Your task to perform on an android device: When is my next appointment? Image 0: 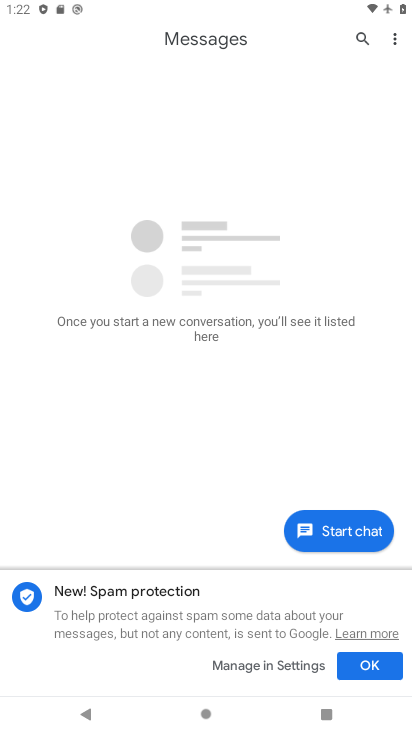
Step 0: press home button
Your task to perform on an android device: When is my next appointment? Image 1: 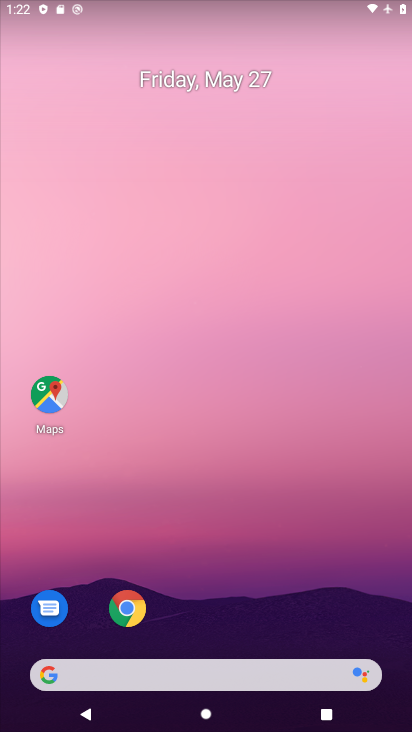
Step 1: drag from (195, 624) to (307, 91)
Your task to perform on an android device: When is my next appointment? Image 2: 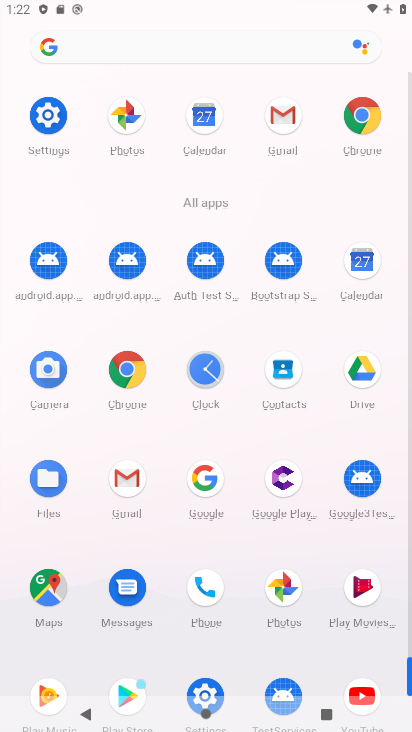
Step 2: click (359, 269)
Your task to perform on an android device: When is my next appointment? Image 3: 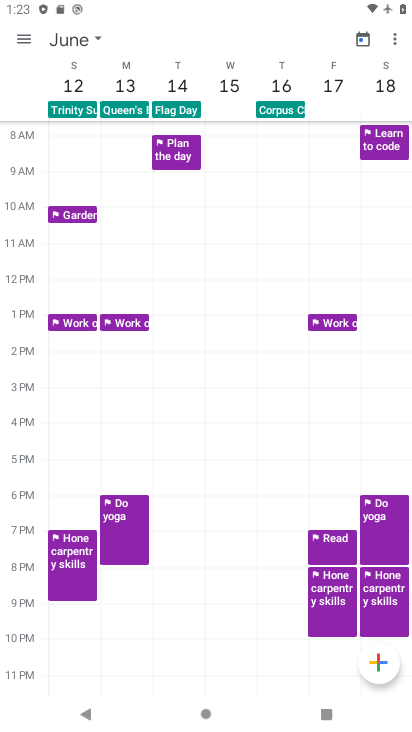
Step 3: click (55, 35)
Your task to perform on an android device: When is my next appointment? Image 4: 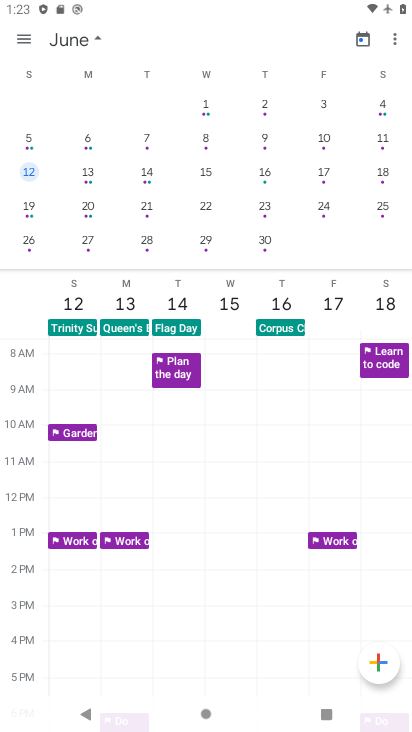
Step 4: drag from (57, 194) to (409, 199)
Your task to perform on an android device: When is my next appointment? Image 5: 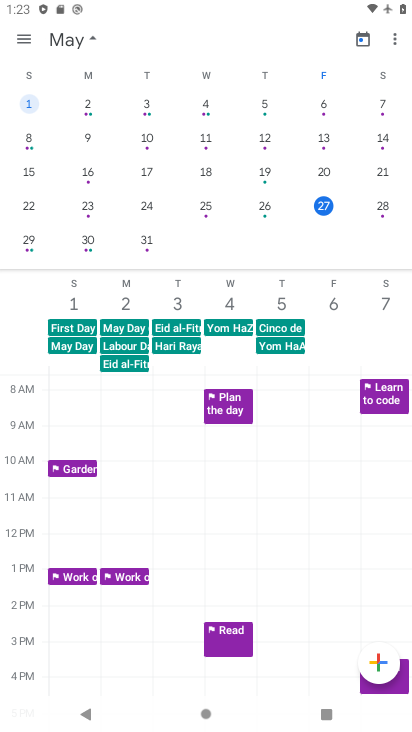
Step 5: drag from (92, 138) to (231, 135)
Your task to perform on an android device: When is my next appointment? Image 6: 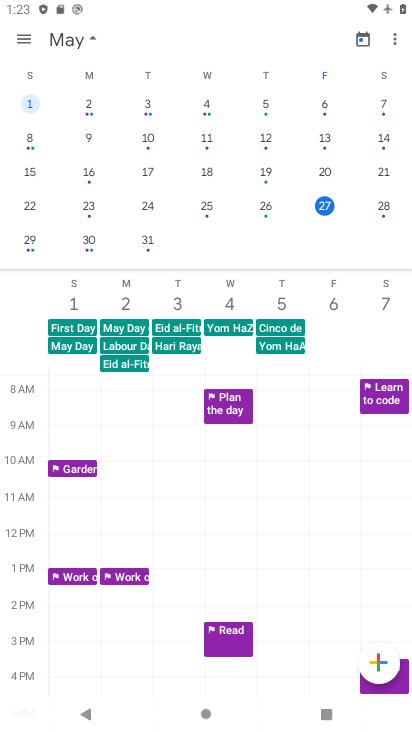
Step 6: drag from (226, 136) to (81, 137)
Your task to perform on an android device: When is my next appointment? Image 7: 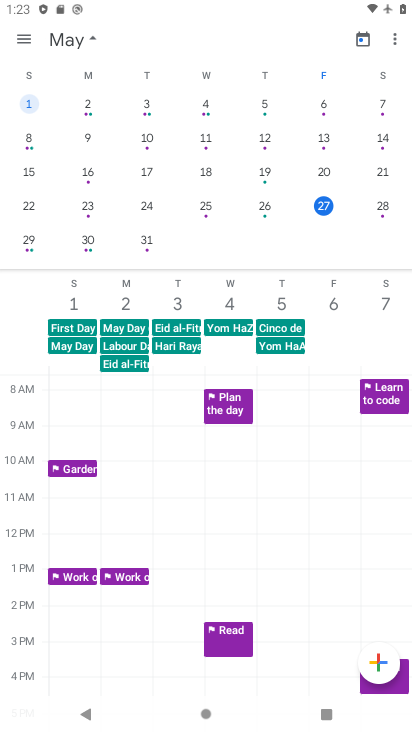
Step 7: click (320, 207)
Your task to perform on an android device: When is my next appointment? Image 8: 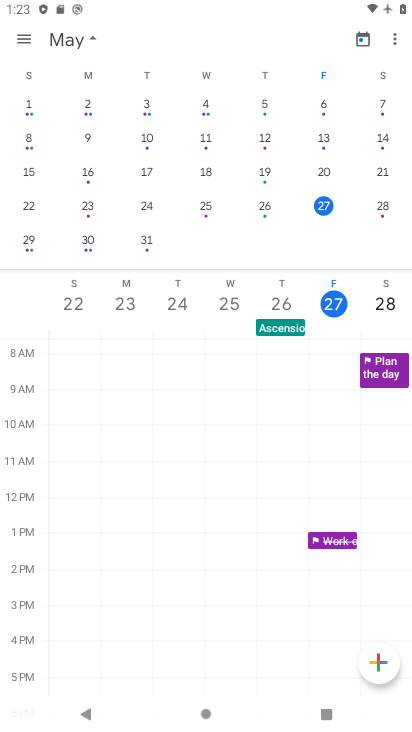
Step 8: click (26, 34)
Your task to perform on an android device: When is my next appointment? Image 9: 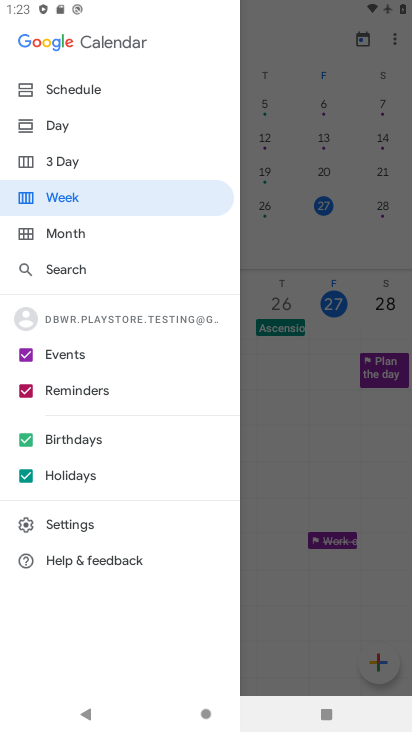
Step 9: click (89, 87)
Your task to perform on an android device: When is my next appointment? Image 10: 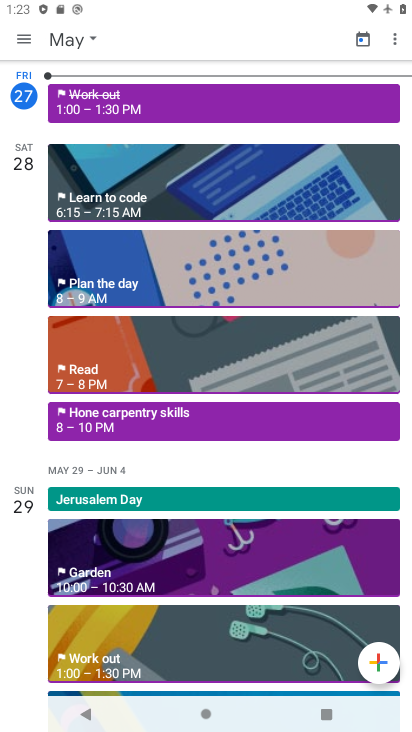
Step 10: click (142, 436)
Your task to perform on an android device: When is my next appointment? Image 11: 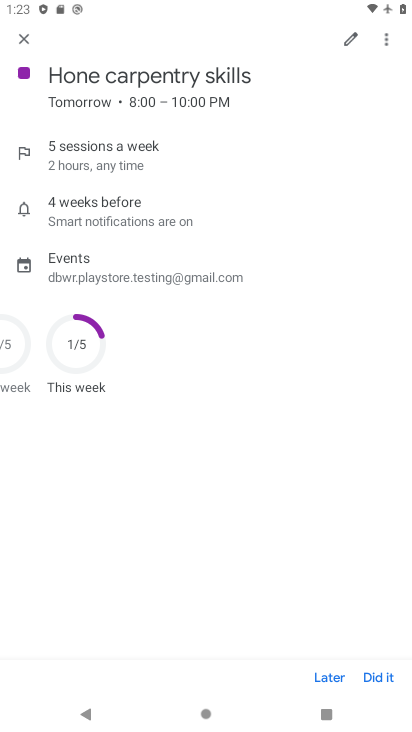
Step 11: task complete